Your task to perform on an android device: Add sony triple a to the cart on bestbuy.com Image 0: 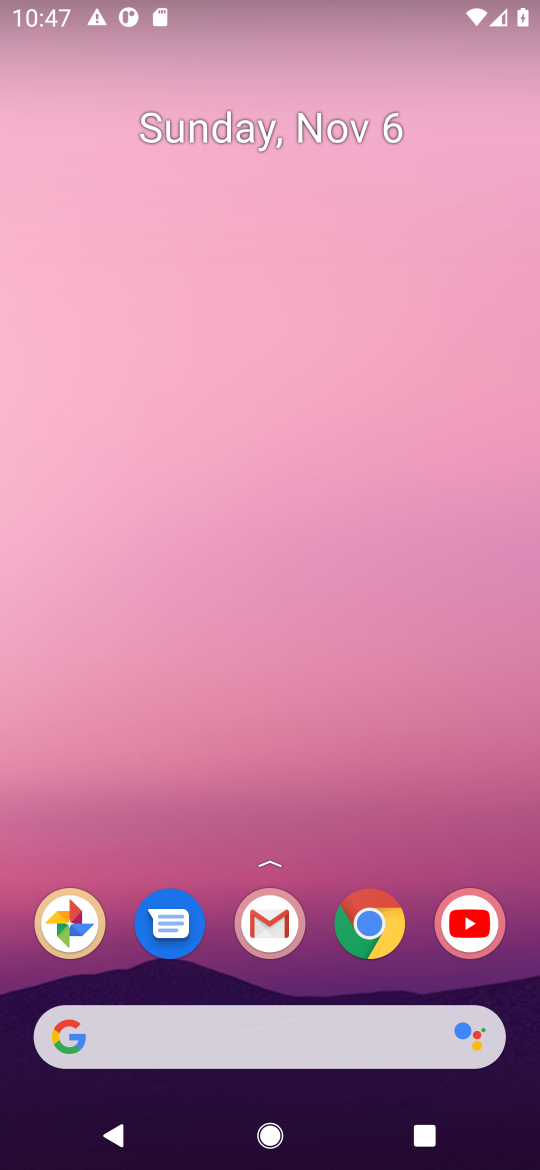
Step 0: click (377, 914)
Your task to perform on an android device: Add sony triple a to the cart on bestbuy.com Image 1: 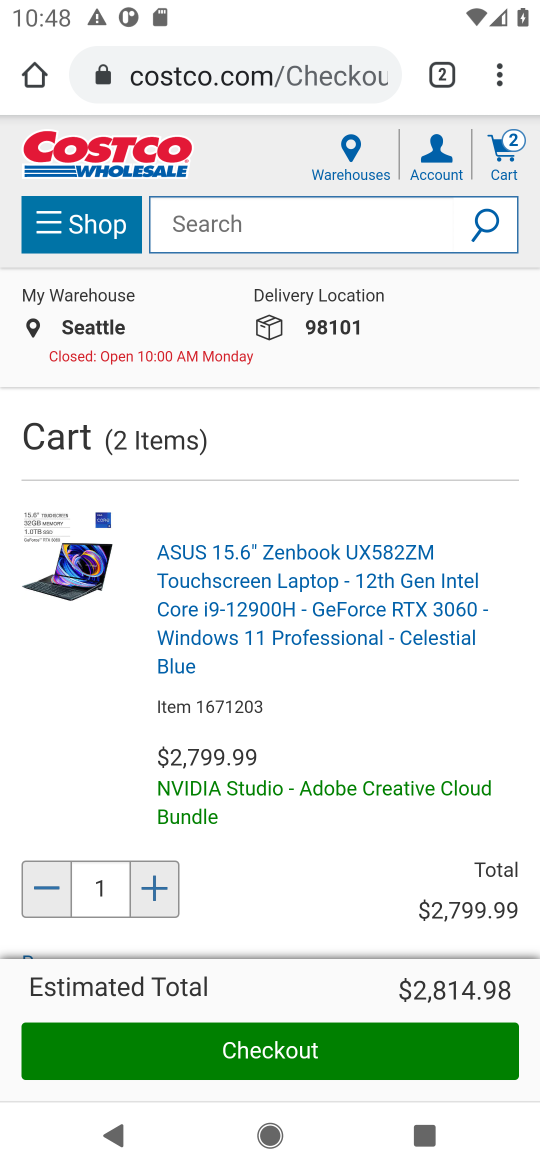
Step 1: click (271, 66)
Your task to perform on an android device: Add sony triple a to the cart on bestbuy.com Image 2: 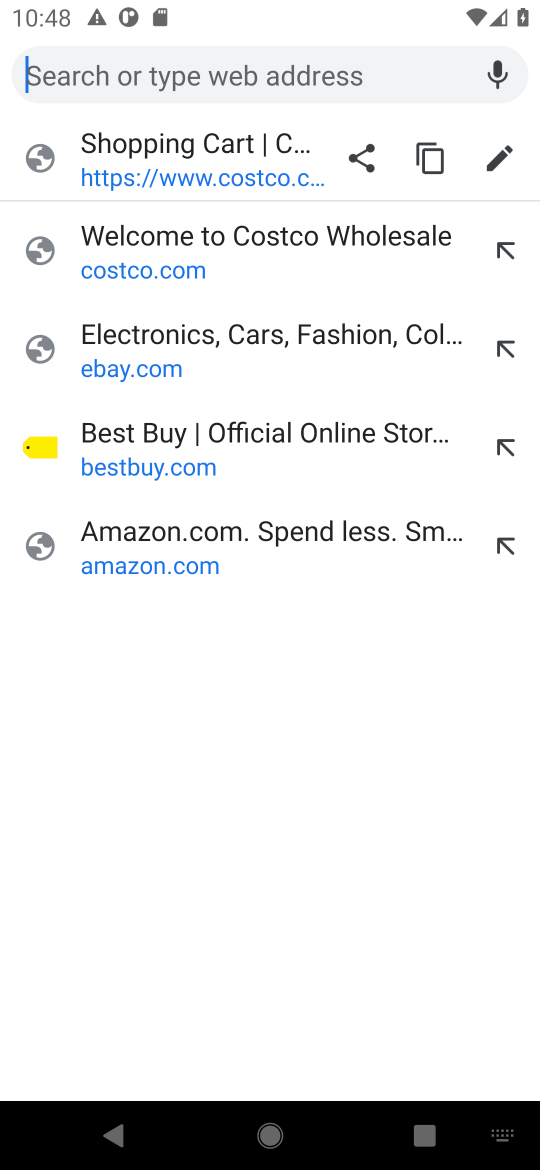
Step 2: click (140, 441)
Your task to perform on an android device: Add sony triple a to the cart on bestbuy.com Image 3: 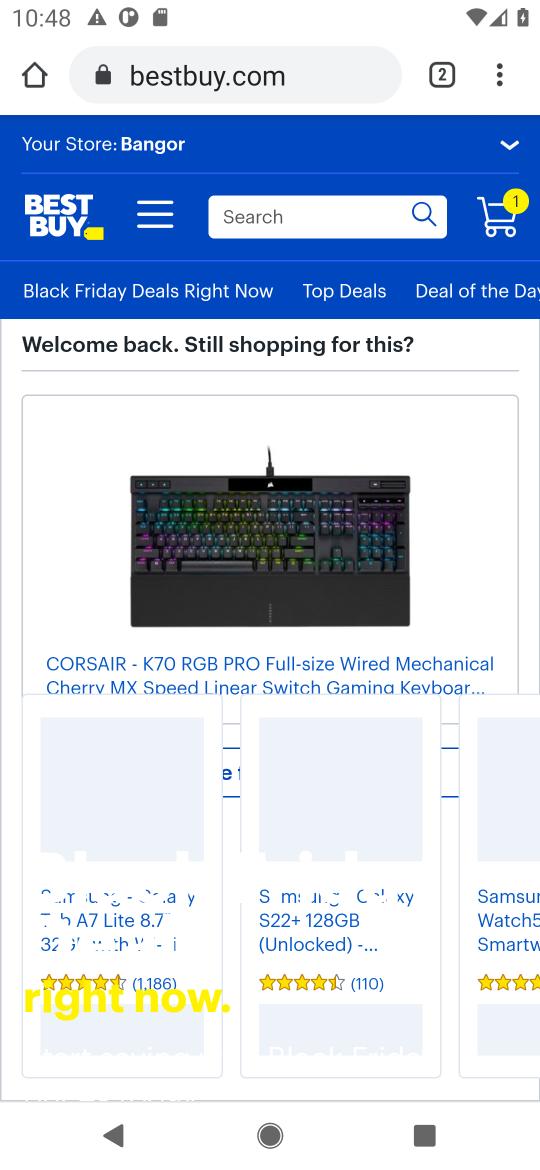
Step 3: click (300, 219)
Your task to perform on an android device: Add sony triple a to the cart on bestbuy.com Image 4: 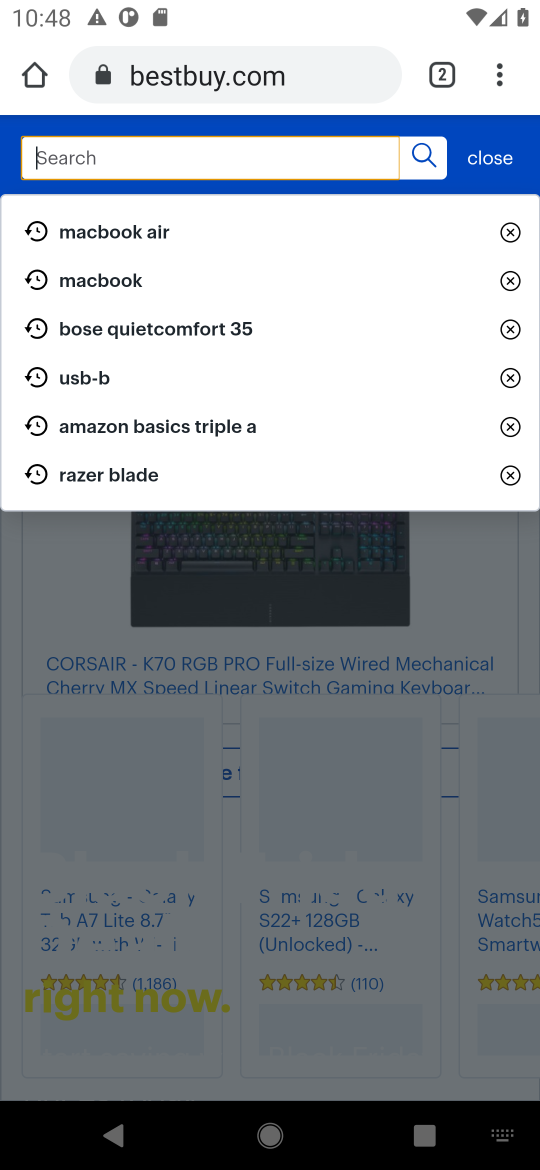
Step 4: type "sony triple a"
Your task to perform on an android device: Add sony triple a to the cart on bestbuy.com Image 5: 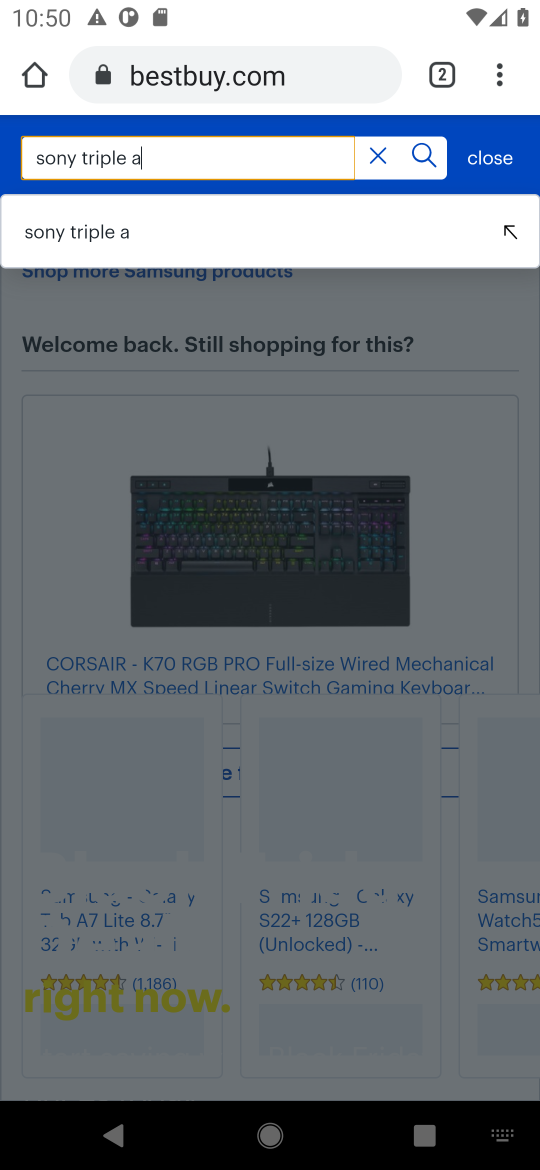
Step 5: click (108, 234)
Your task to perform on an android device: Add sony triple a to the cart on bestbuy.com Image 6: 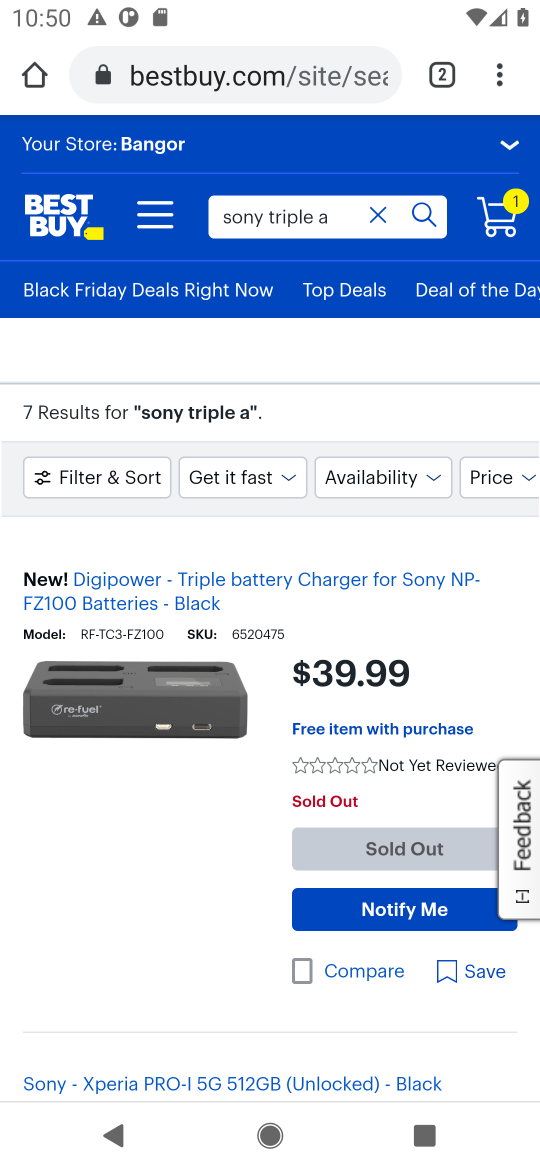
Step 6: task complete